Your task to perform on an android device: Look up the book "The Girl on the Train". Image 0: 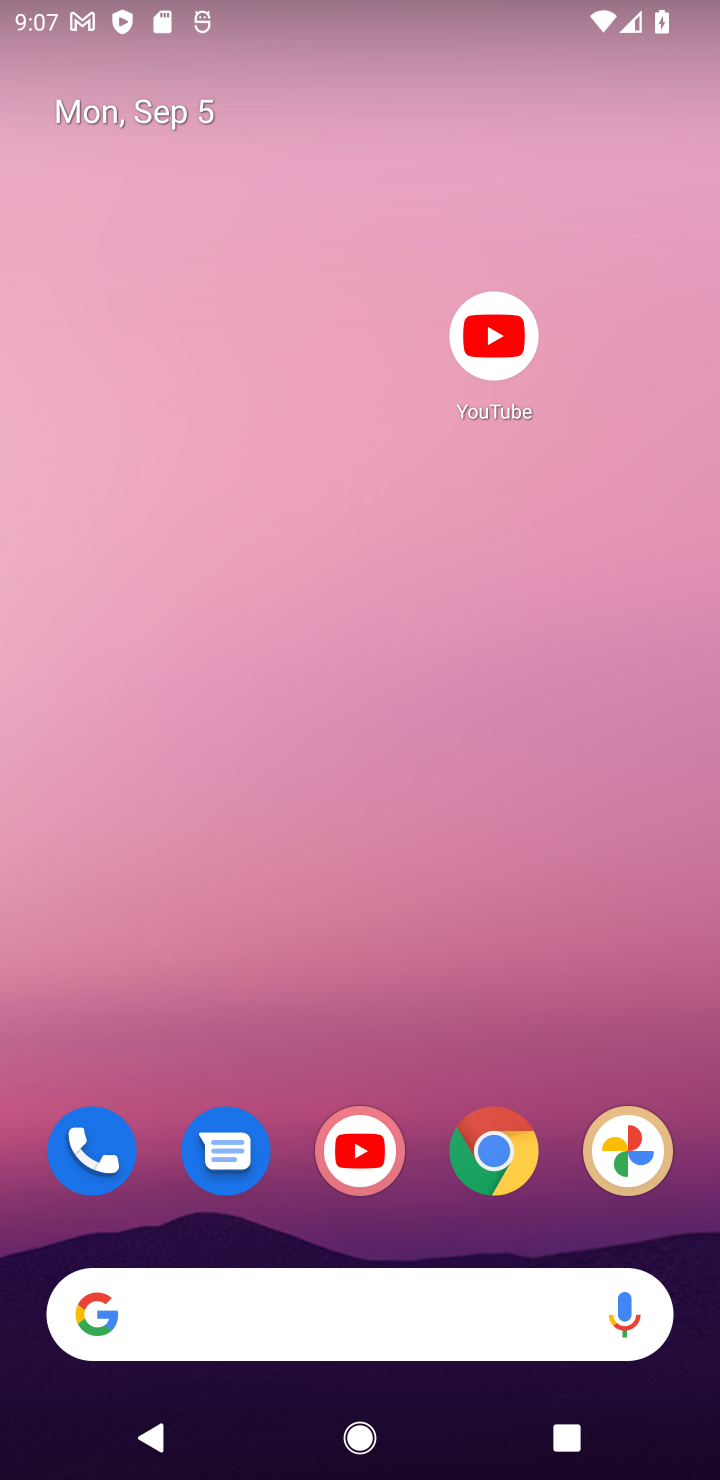
Step 0: click (529, 1195)
Your task to perform on an android device: Look up the book "The Girl on the Train". Image 1: 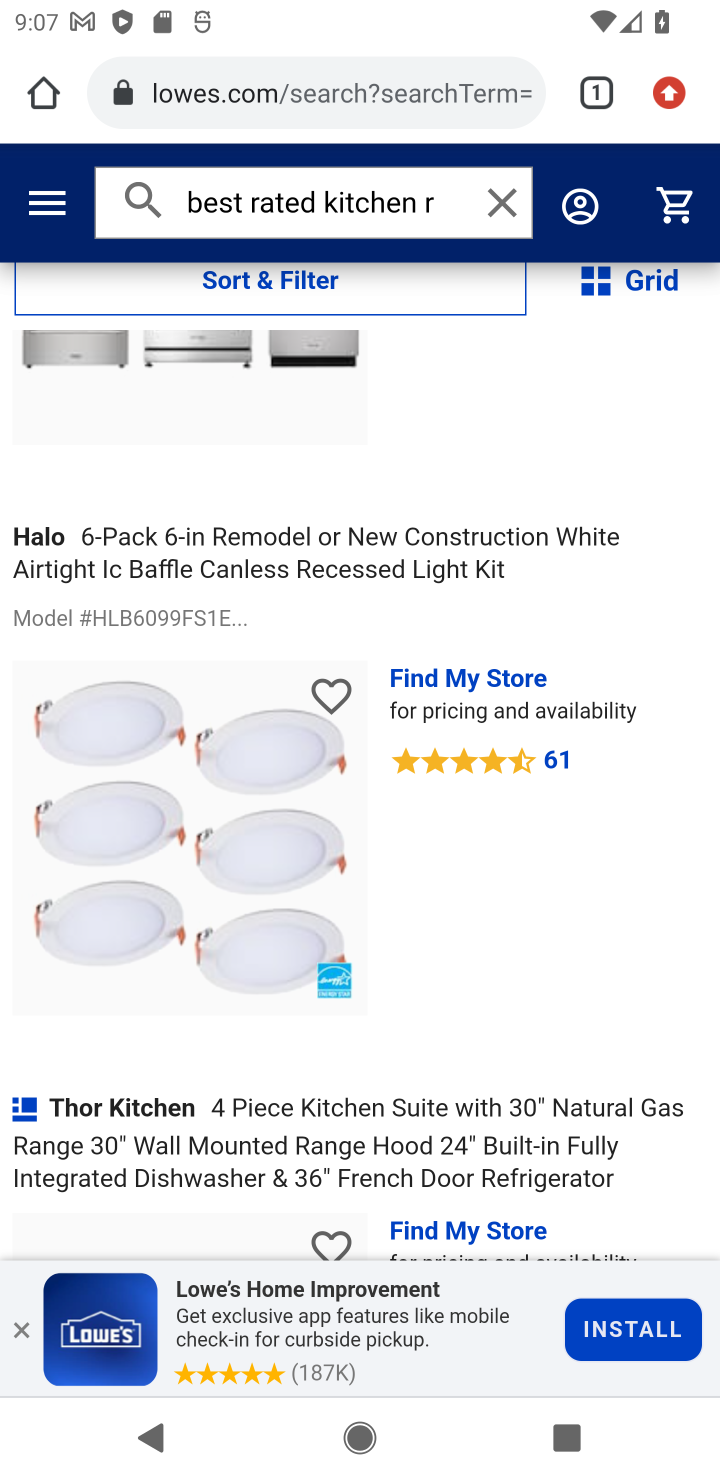
Step 1: click (315, 79)
Your task to perform on an android device: Look up the book "The Girl on the Train". Image 2: 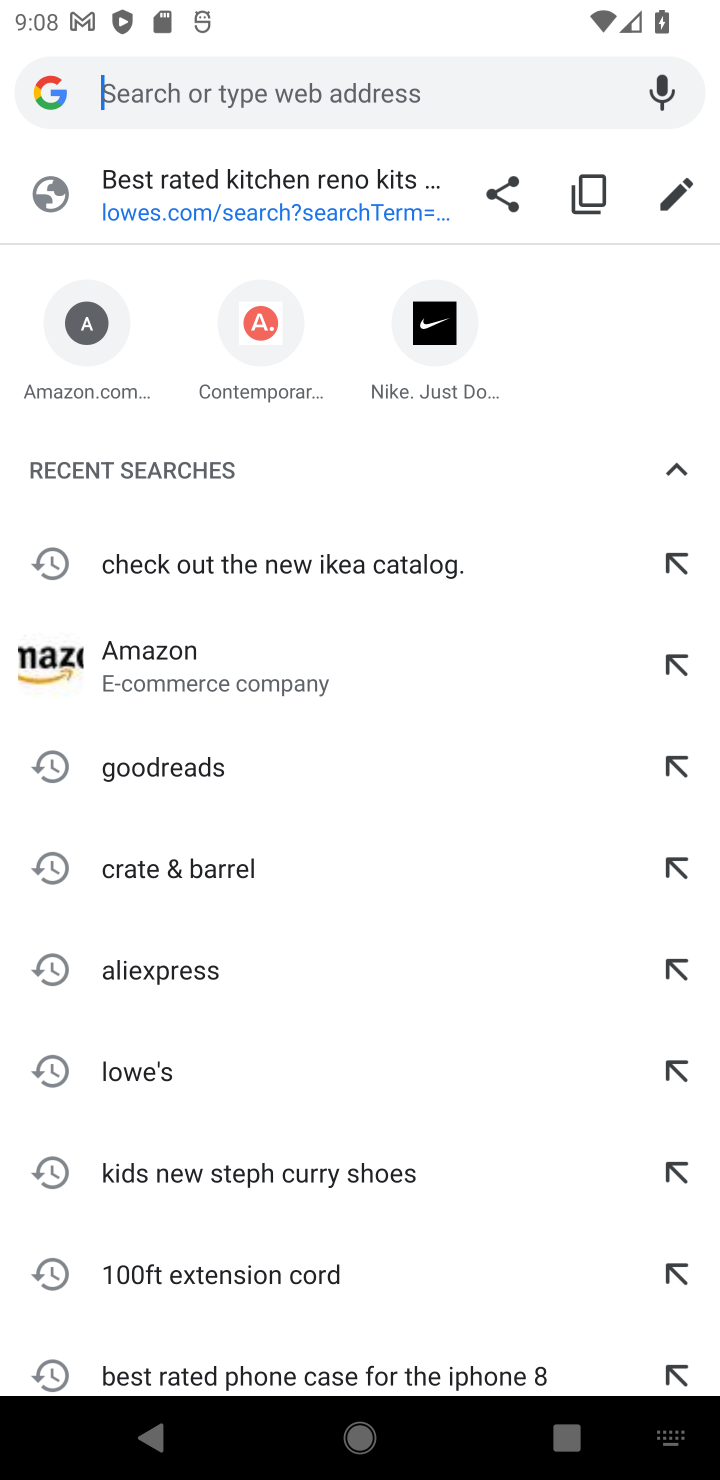
Step 2: type "Train"
Your task to perform on an android device: Look up the book "The Girl on the Train". Image 3: 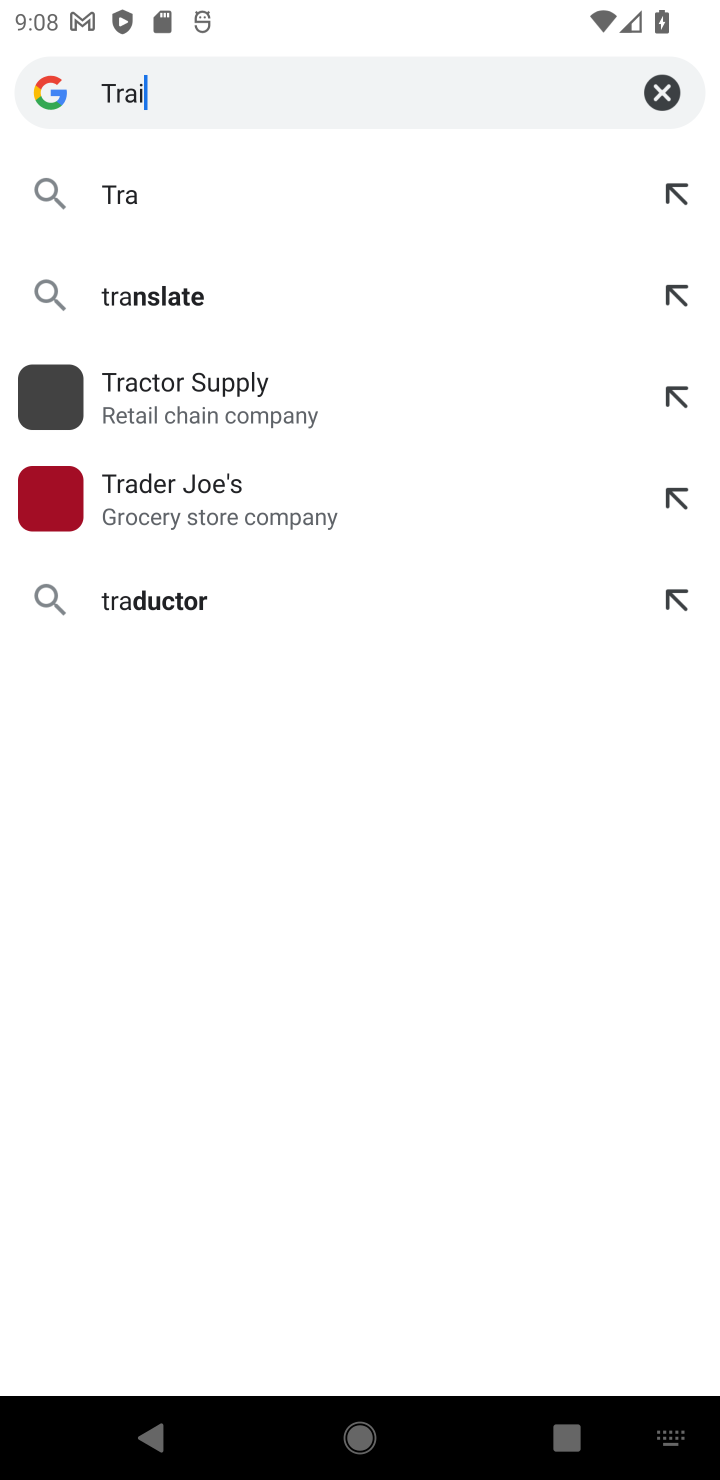
Step 3: press enter
Your task to perform on an android device: Look up the book "The Girl on the Train". Image 4: 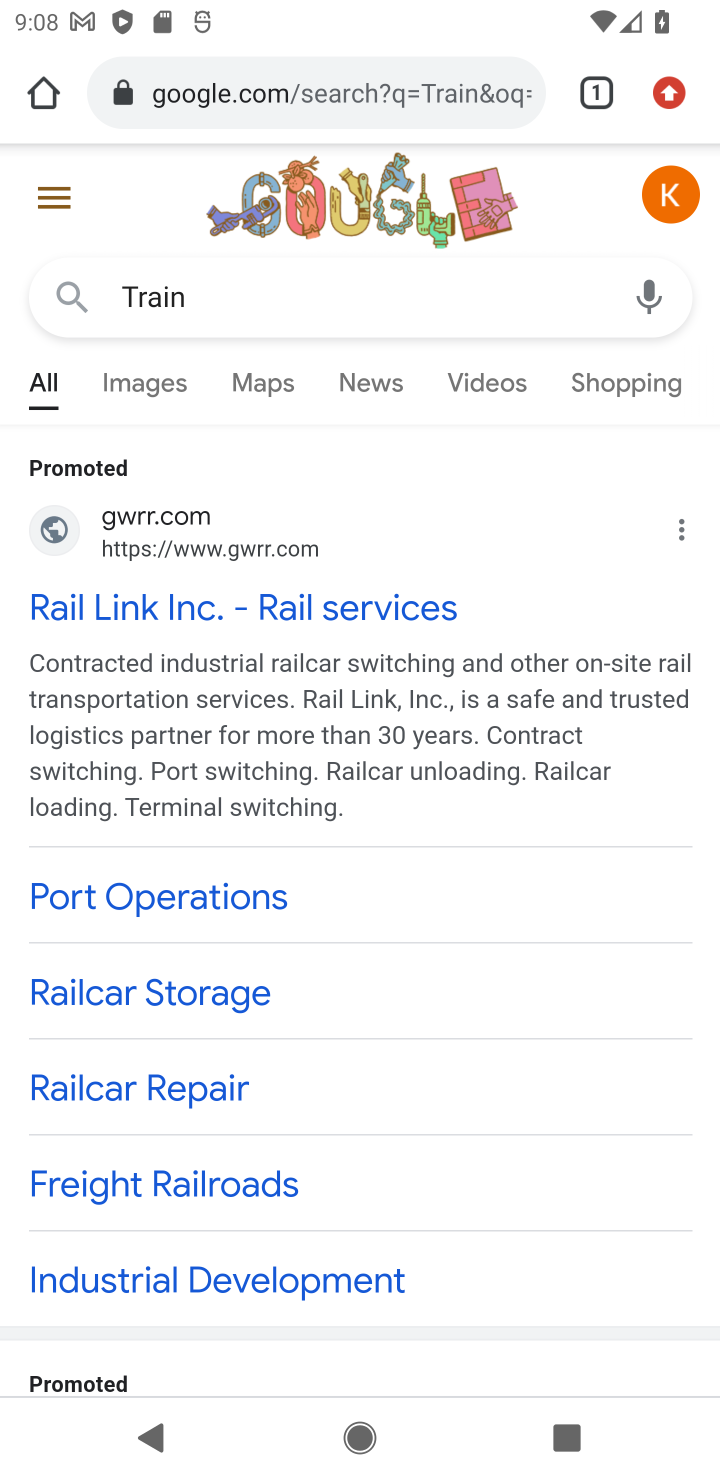
Step 4: click (195, 320)
Your task to perform on an android device: Look up the book "The Girl on the Train". Image 5: 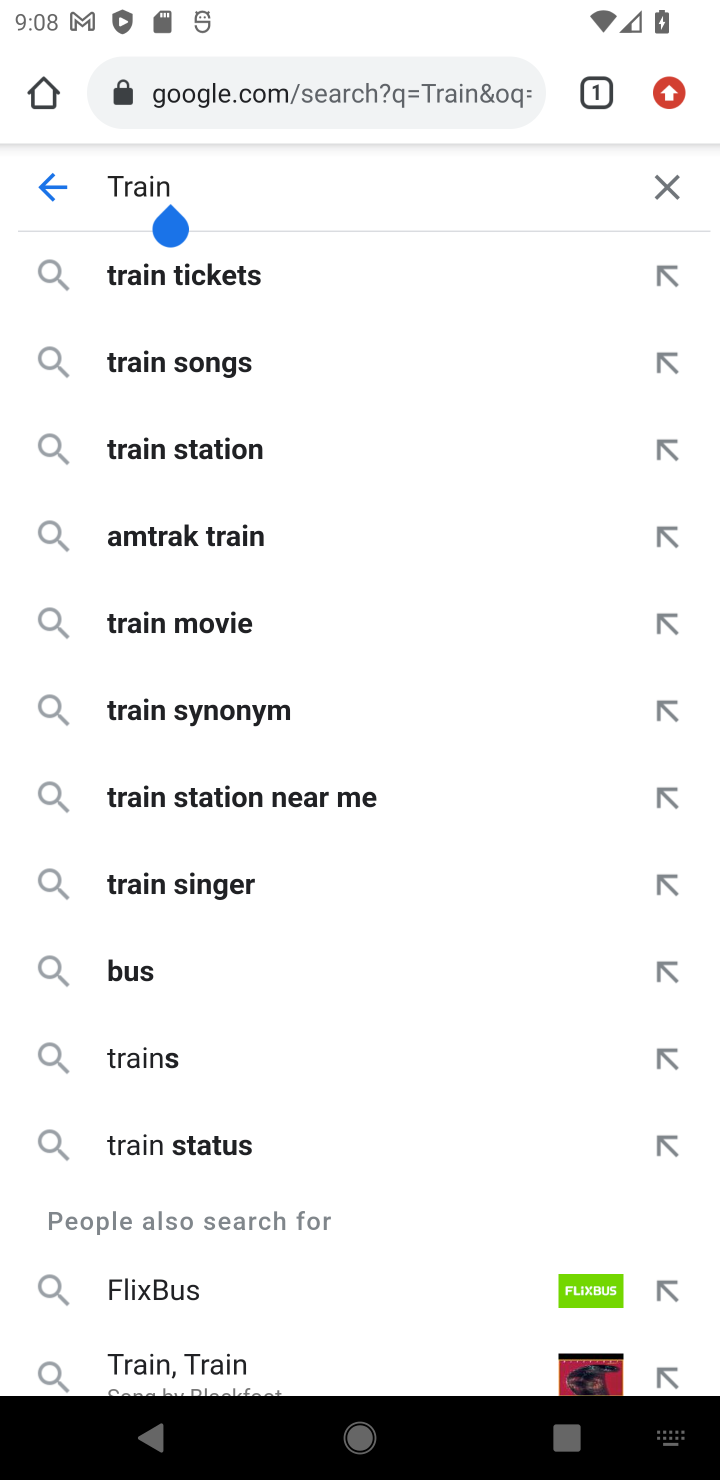
Step 5: click (296, 91)
Your task to perform on an android device: Look up the book "The Girl on the Train". Image 6: 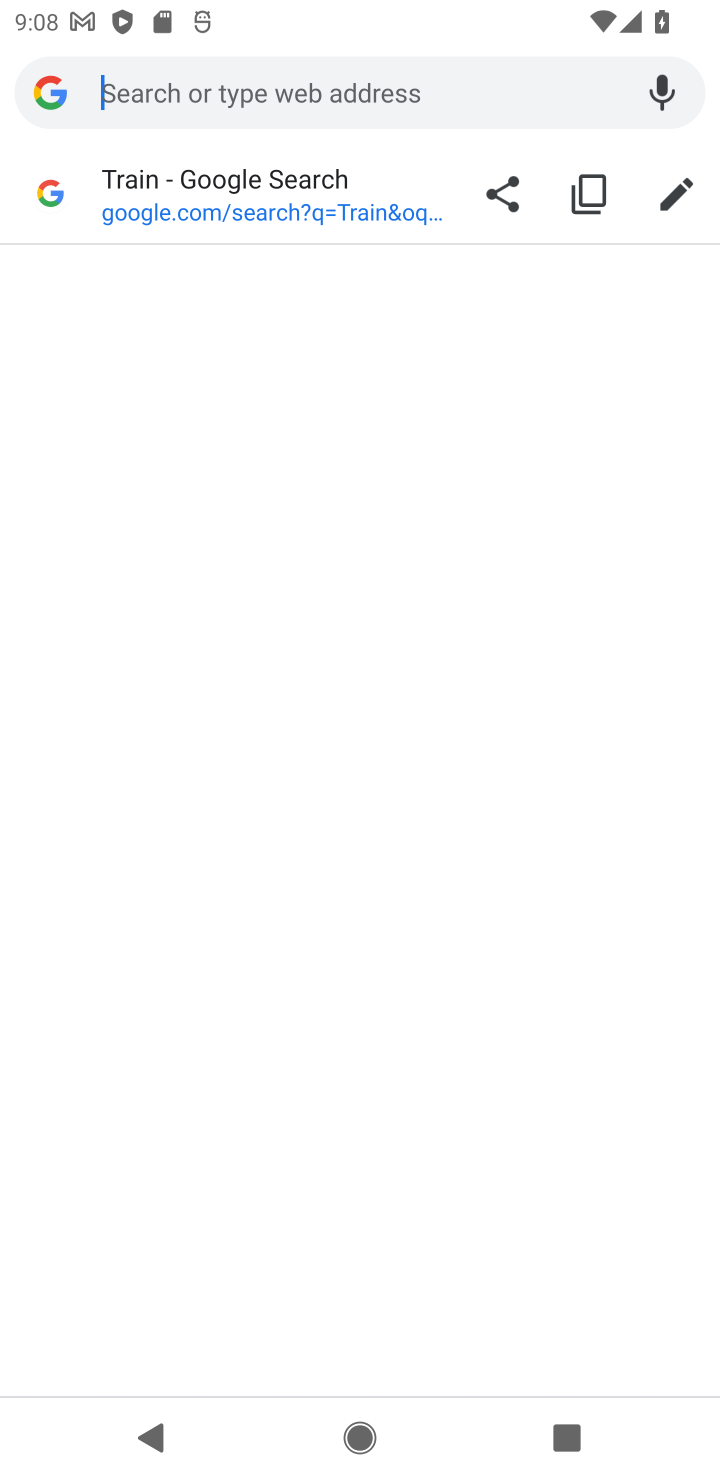
Step 6: type "The Girl on the Train"
Your task to perform on an android device: Look up the book "The Girl on the Train". Image 7: 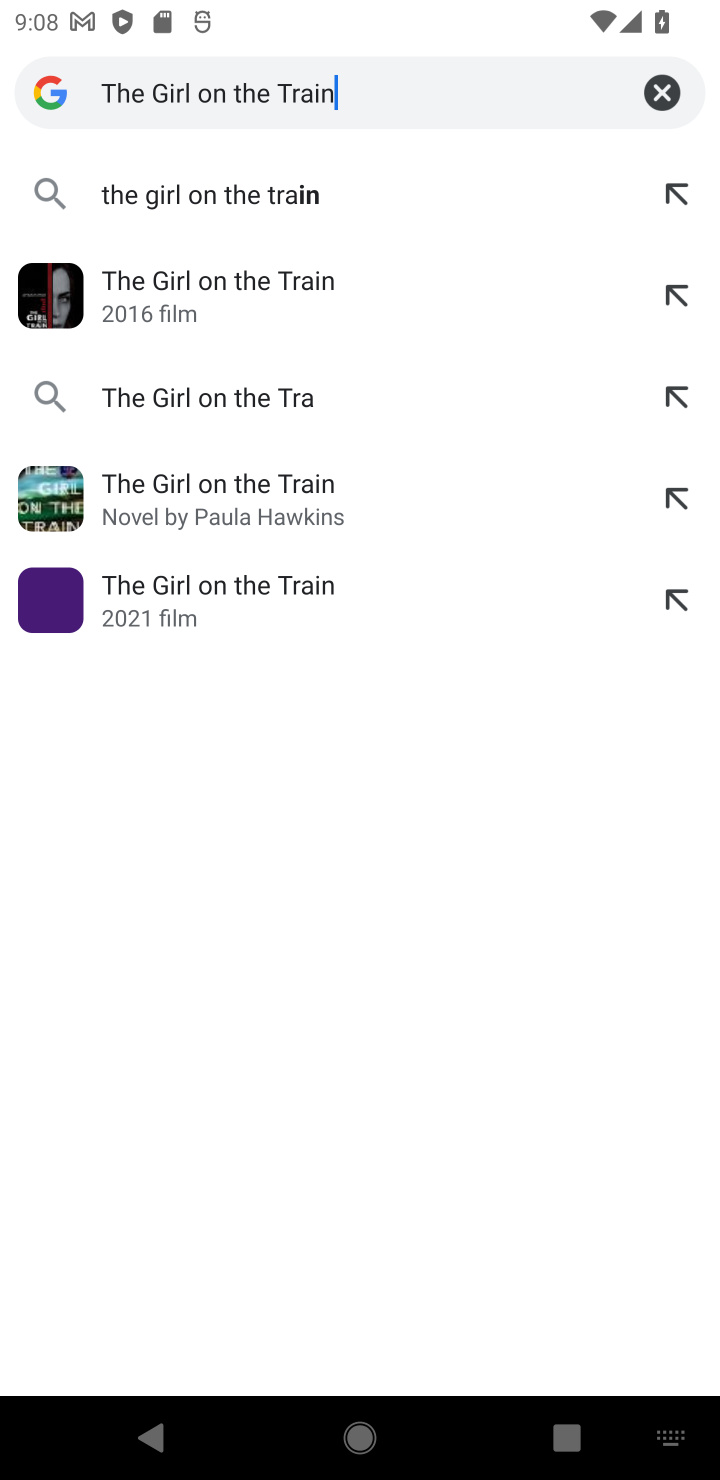
Step 7: press enter
Your task to perform on an android device: Look up the book "The Girl on the Train". Image 8: 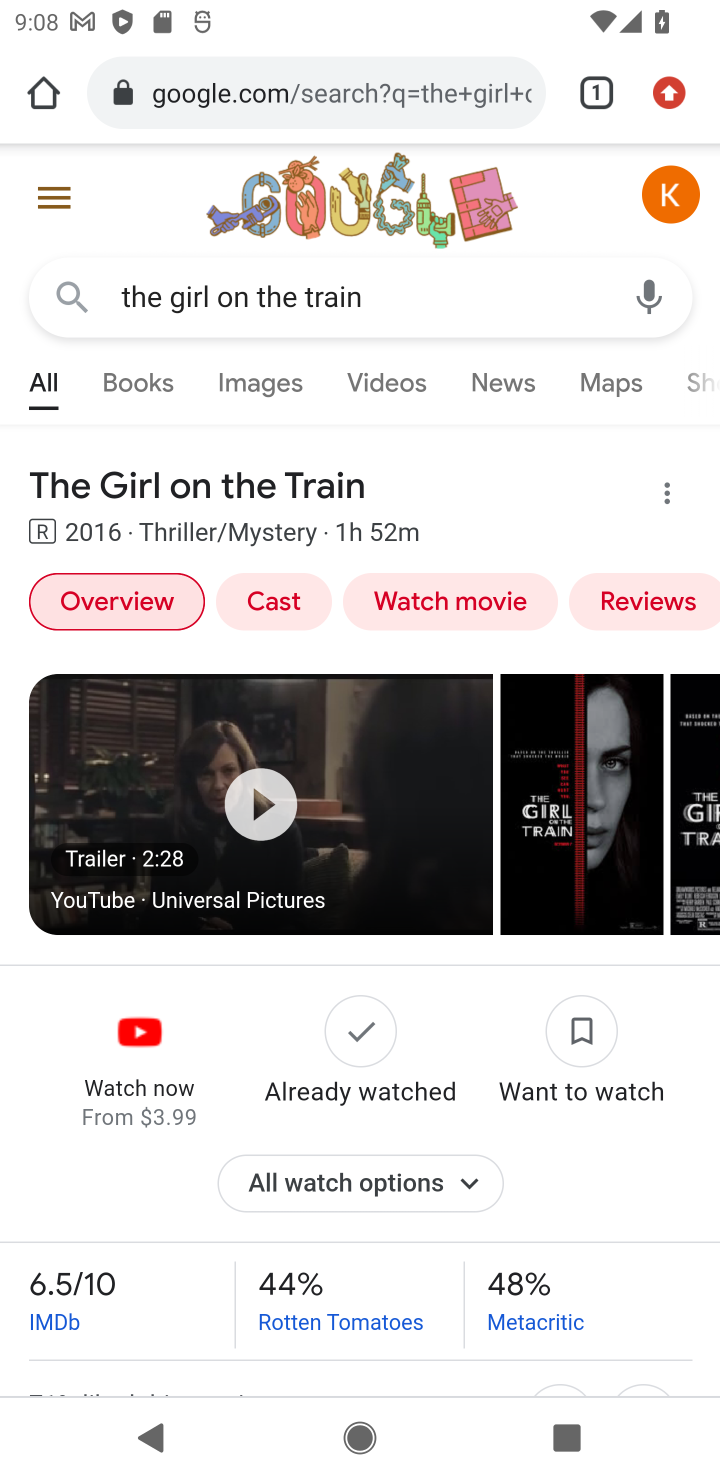
Step 8: task complete